Your task to perform on an android device: allow notifications from all sites in the chrome app Image 0: 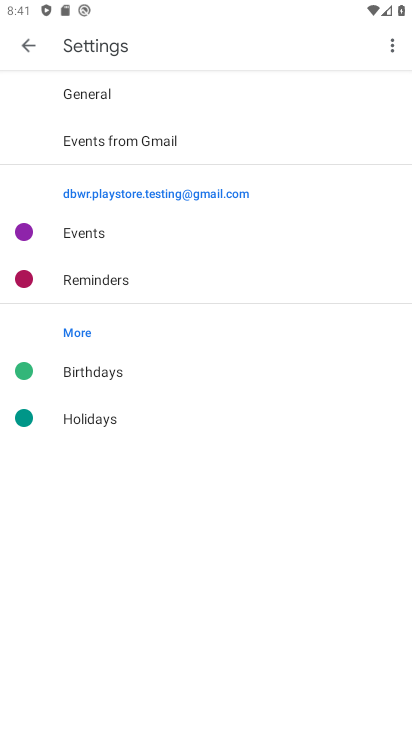
Step 0: click (57, 411)
Your task to perform on an android device: allow notifications from all sites in the chrome app Image 1: 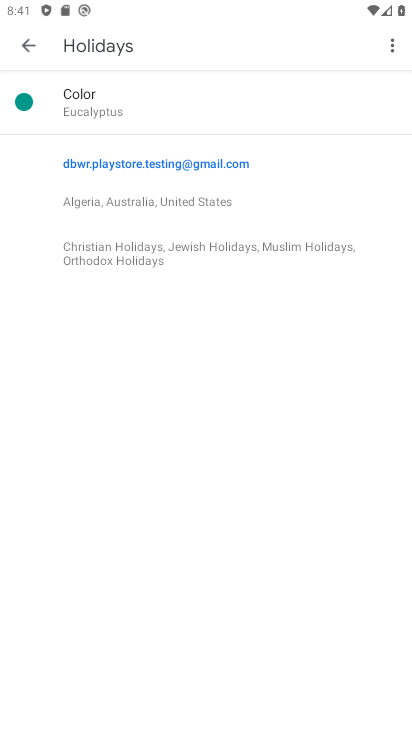
Step 1: press home button
Your task to perform on an android device: allow notifications from all sites in the chrome app Image 2: 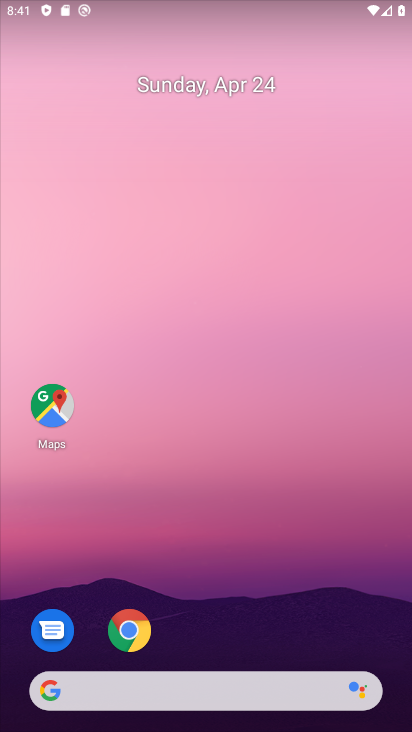
Step 2: drag from (233, 629) to (260, 119)
Your task to perform on an android device: allow notifications from all sites in the chrome app Image 3: 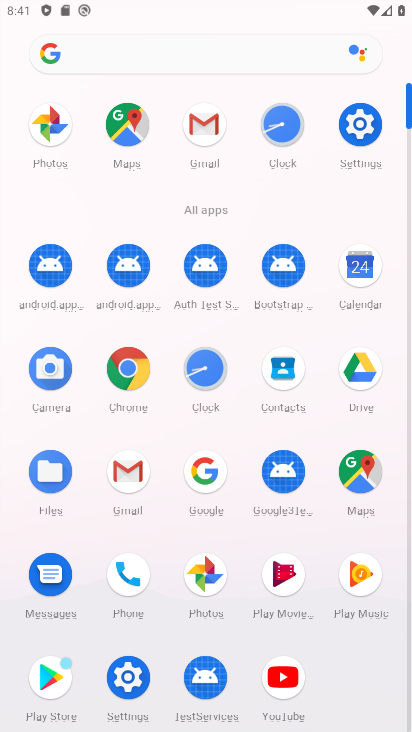
Step 3: click (129, 372)
Your task to perform on an android device: allow notifications from all sites in the chrome app Image 4: 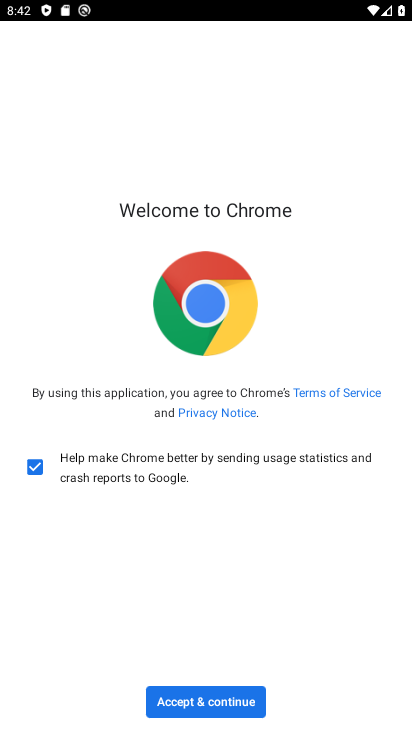
Step 4: click (210, 709)
Your task to perform on an android device: allow notifications from all sites in the chrome app Image 5: 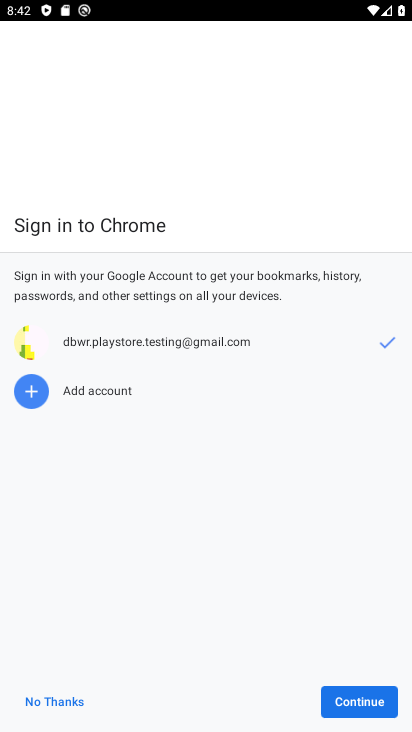
Step 5: click (378, 693)
Your task to perform on an android device: allow notifications from all sites in the chrome app Image 6: 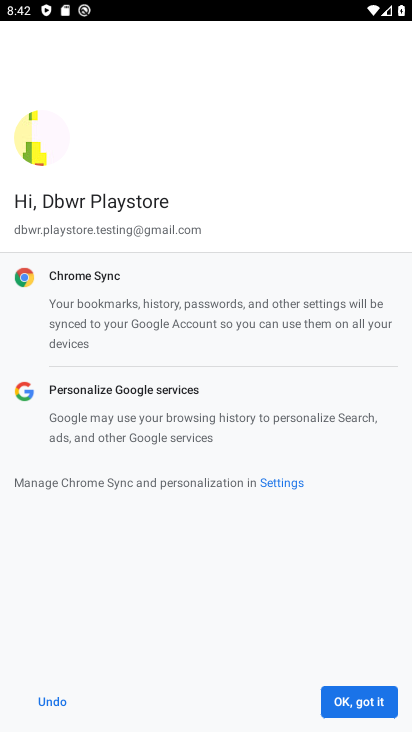
Step 6: click (357, 709)
Your task to perform on an android device: allow notifications from all sites in the chrome app Image 7: 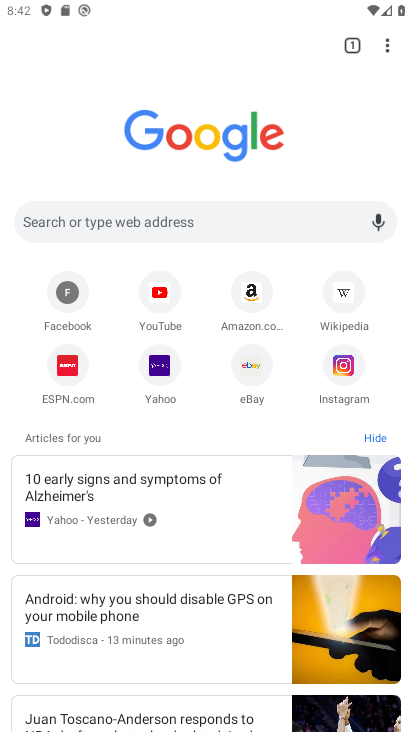
Step 7: click (391, 47)
Your task to perform on an android device: allow notifications from all sites in the chrome app Image 8: 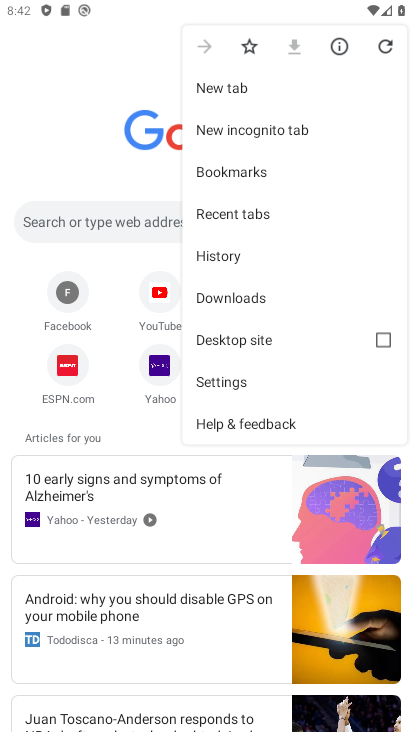
Step 8: click (229, 379)
Your task to perform on an android device: allow notifications from all sites in the chrome app Image 9: 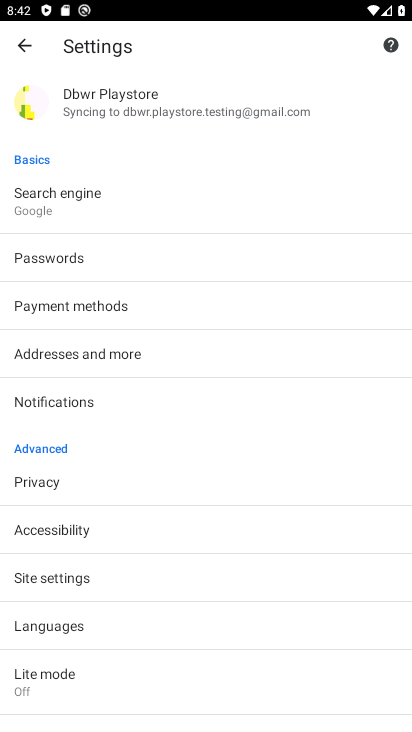
Step 9: click (84, 399)
Your task to perform on an android device: allow notifications from all sites in the chrome app Image 10: 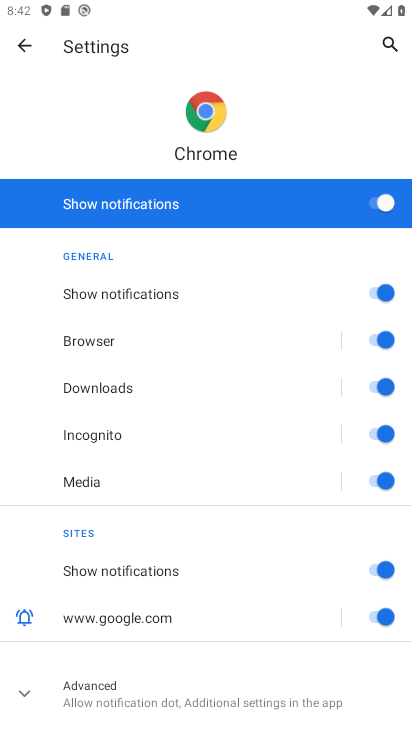
Step 10: task complete